Your task to perform on an android device: turn on bluetooth scan Image 0: 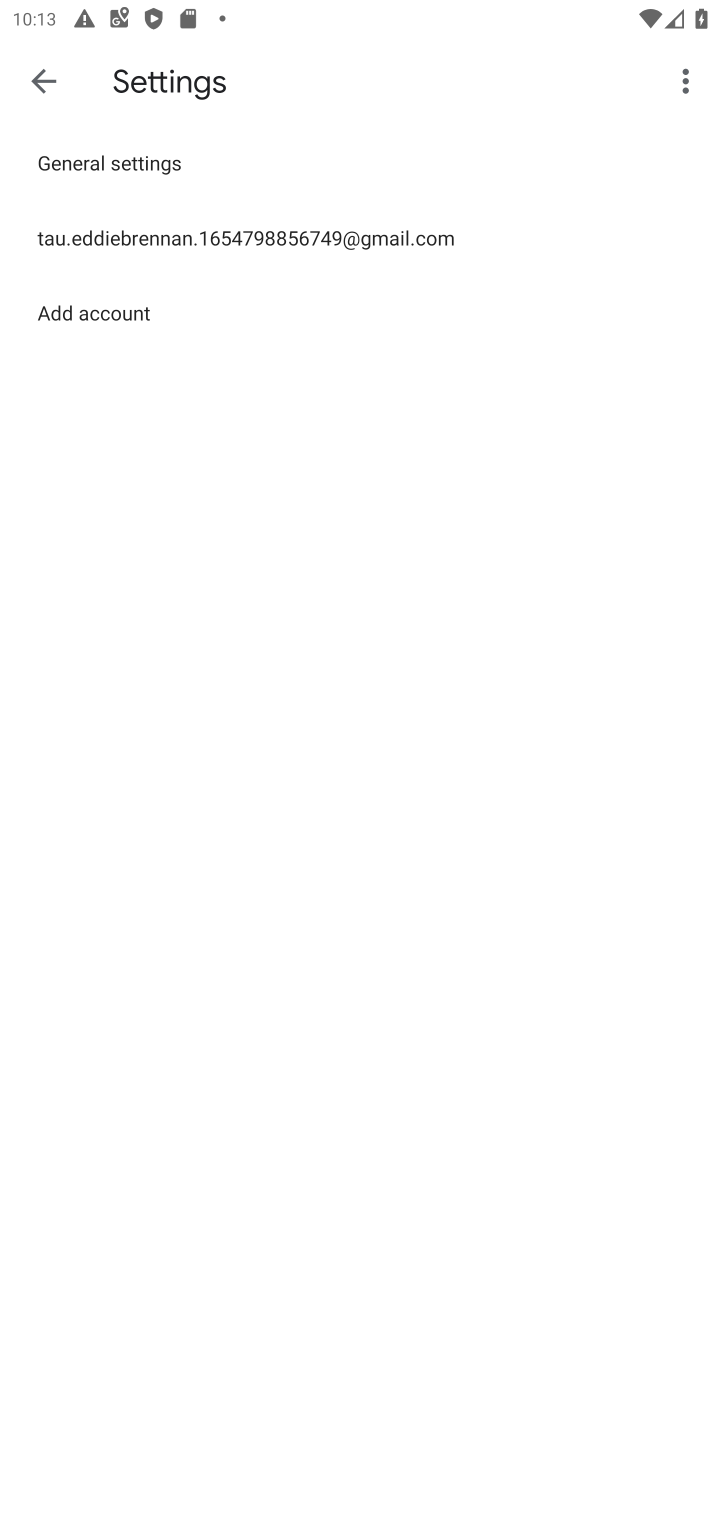
Step 0: click (36, 77)
Your task to perform on an android device: turn on bluetooth scan Image 1: 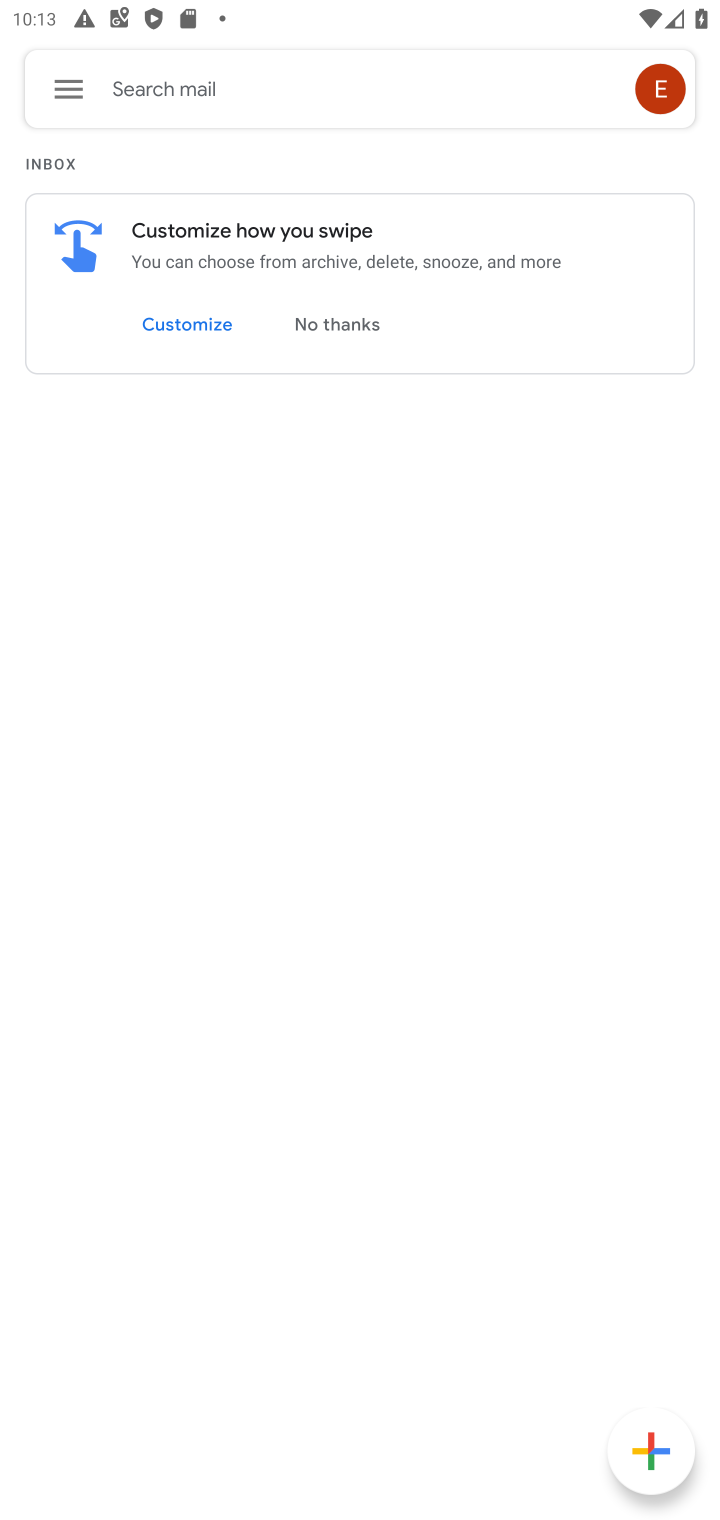
Step 1: press home button
Your task to perform on an android device: turn on bluetooth scan Image 2: 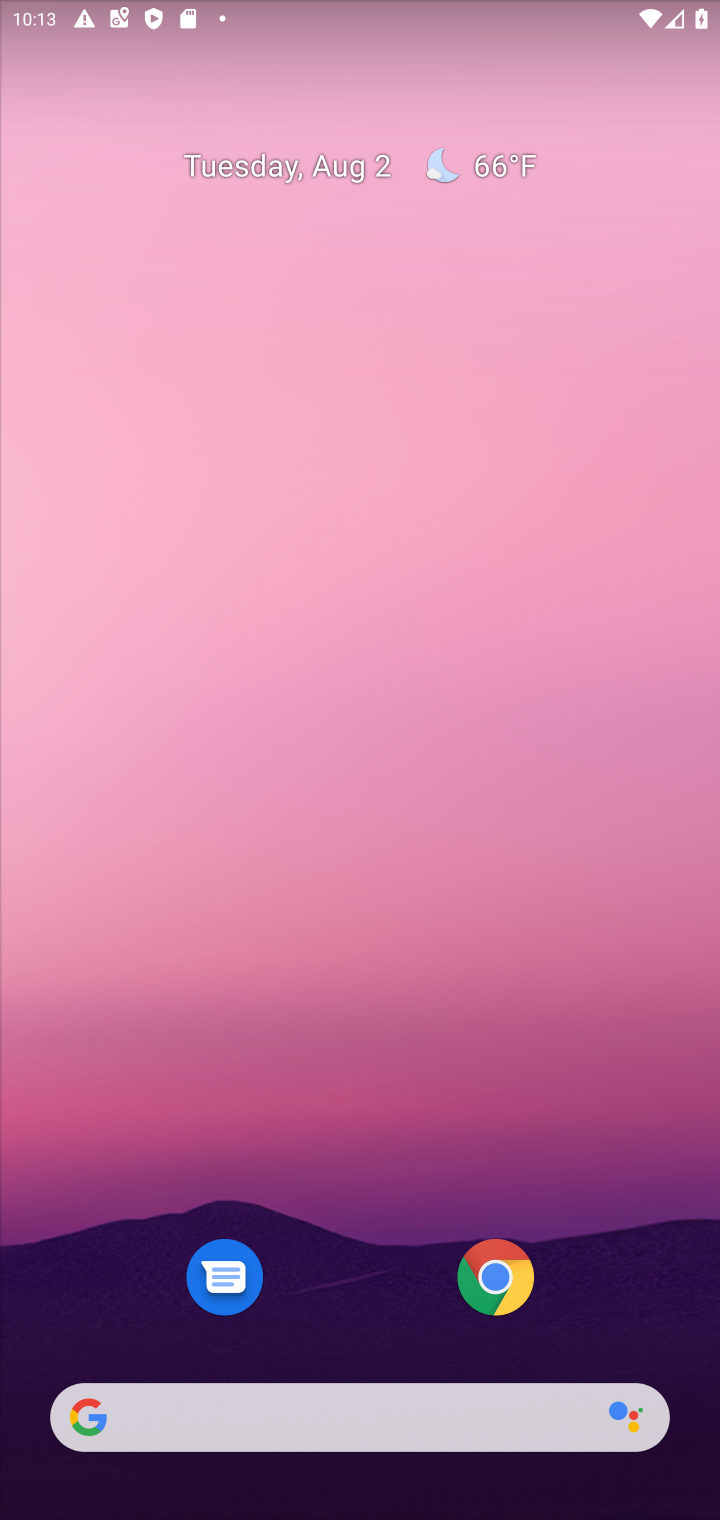
Step 2: drag from (415, 1118) to (542, 454)
Your task to perform on an android device: turn on bluetooth scan Image 3: 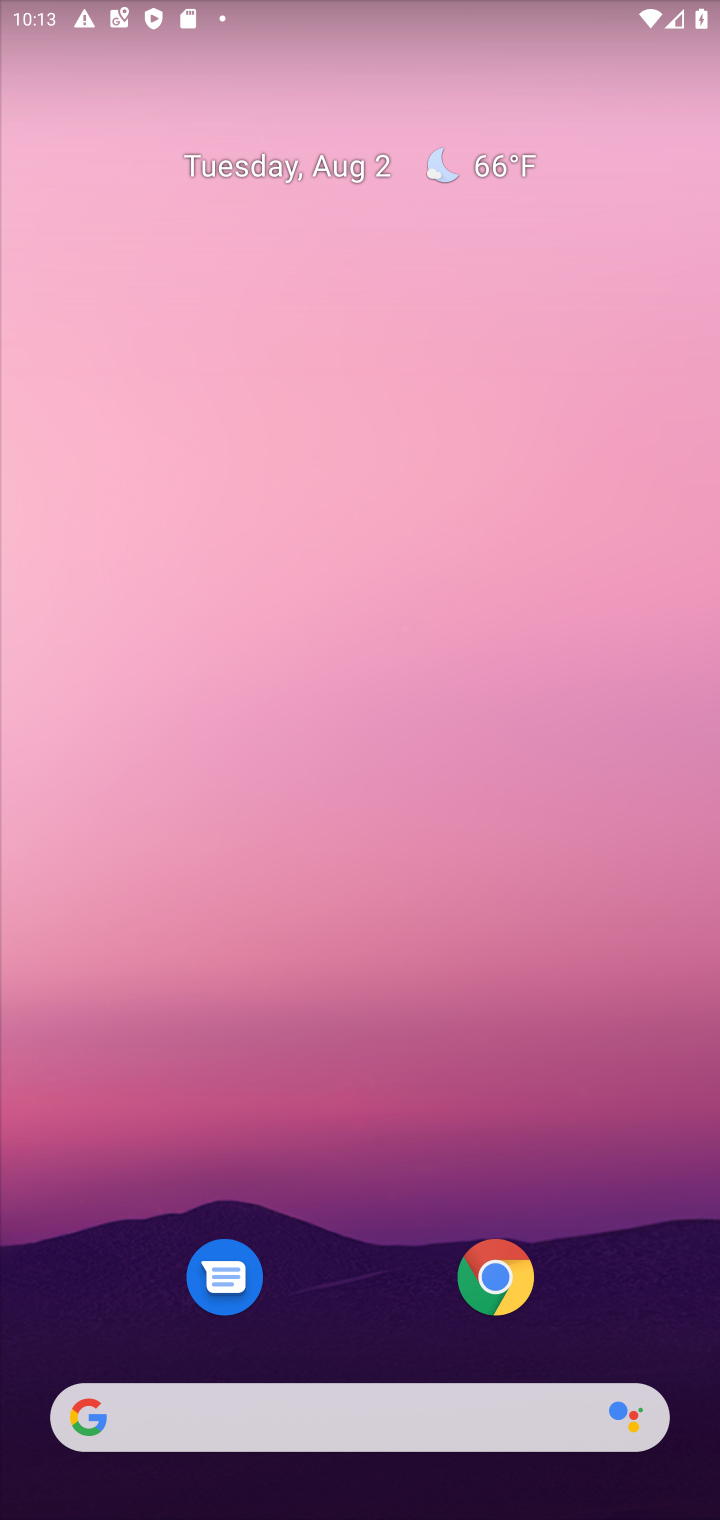
Step 3: drag from (405, 1087) to (466, 234)
Your task to perform on an android device: turn on bluetooth scan Image 4: 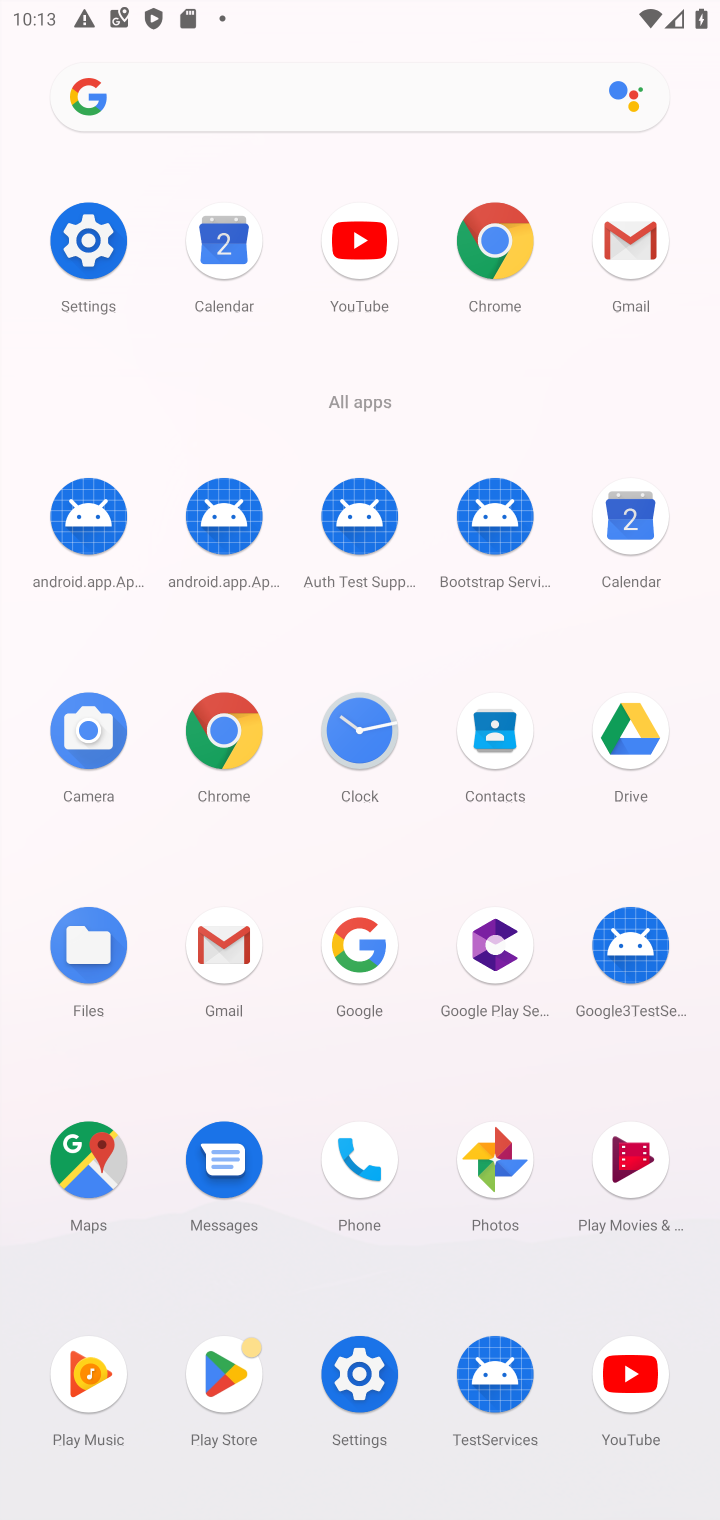
Step 4: click (65, 230)
Your task to perform on an android device: turn on bluetooth scan Image 5: 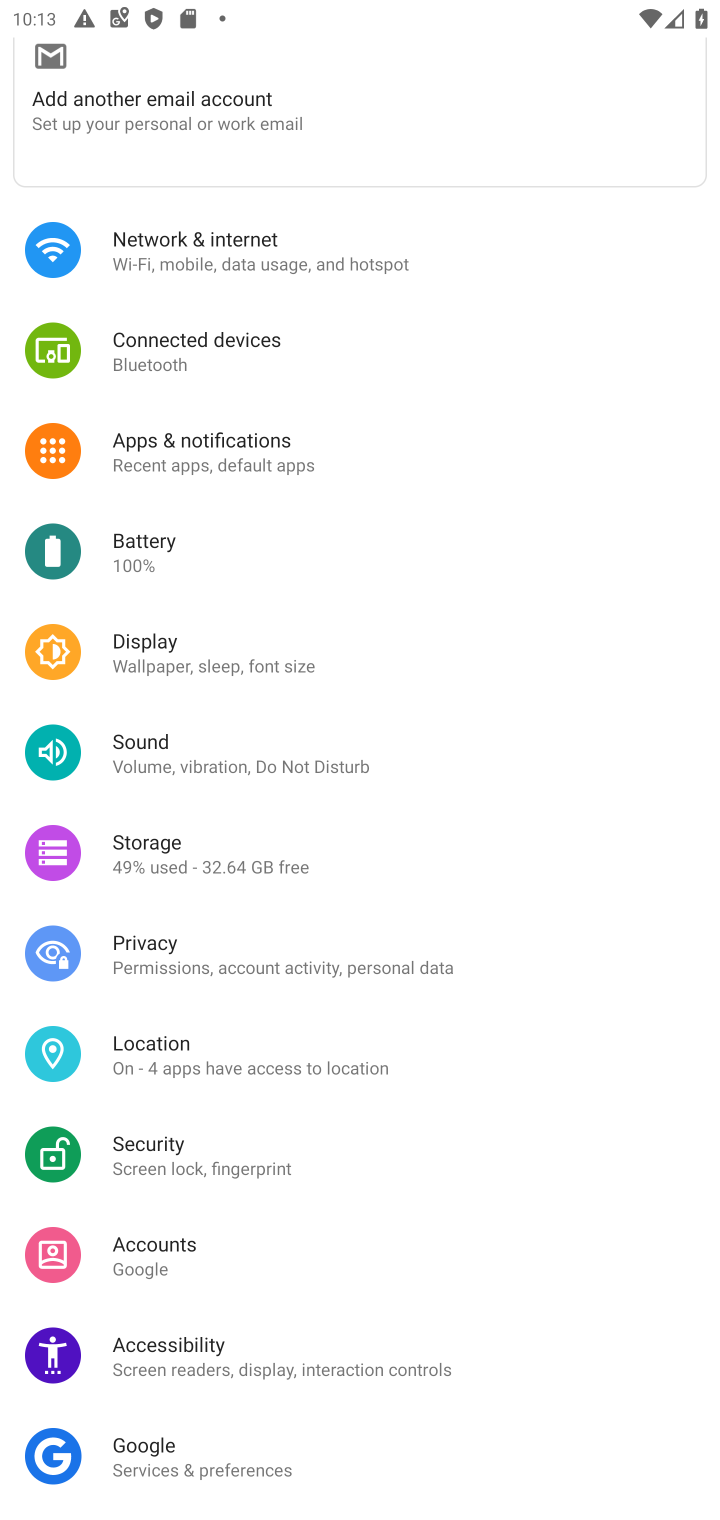
Step 5: click (167, 346)
Your task to perform on an android device: turn on bluetooth scan Image 6: 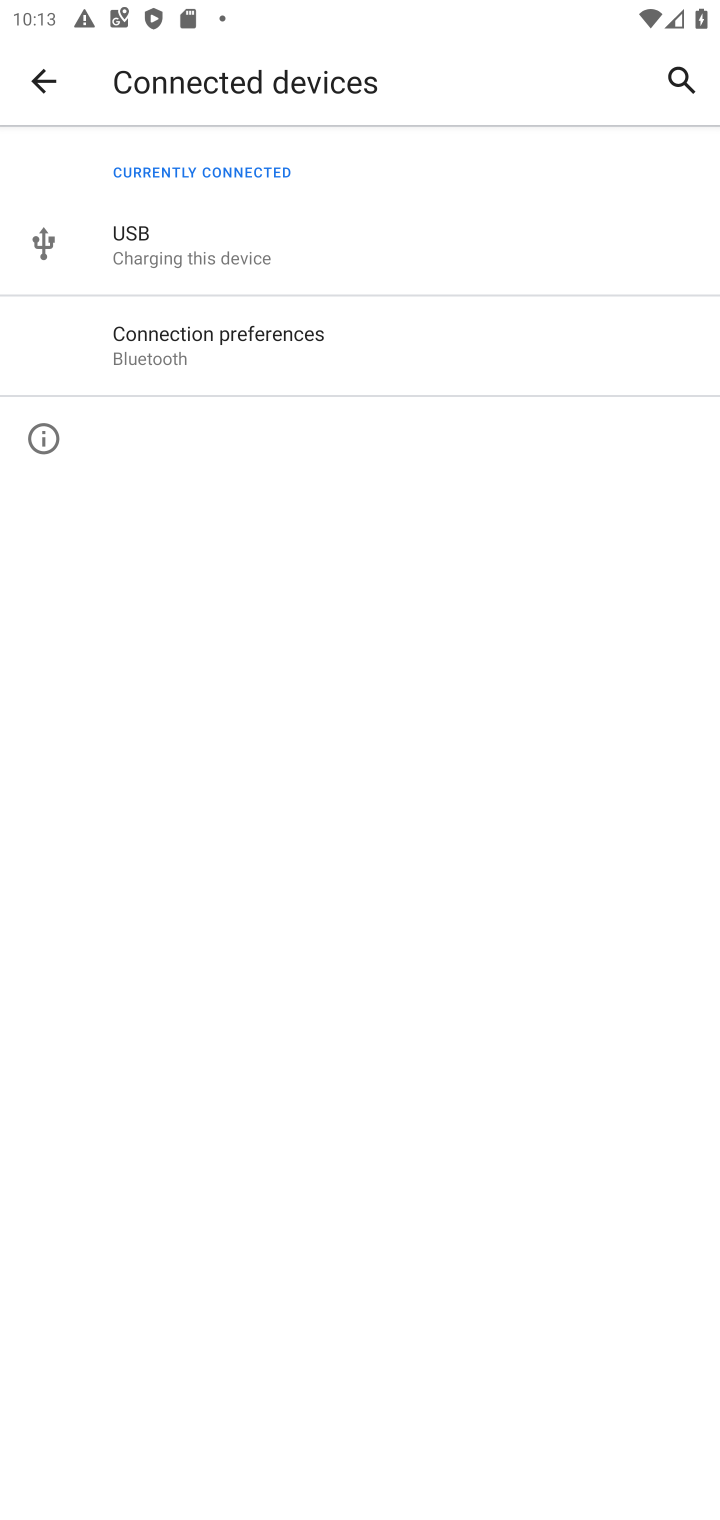
Step 6: task complete